Your task to perform on an android device: Go to eBay Image 0: 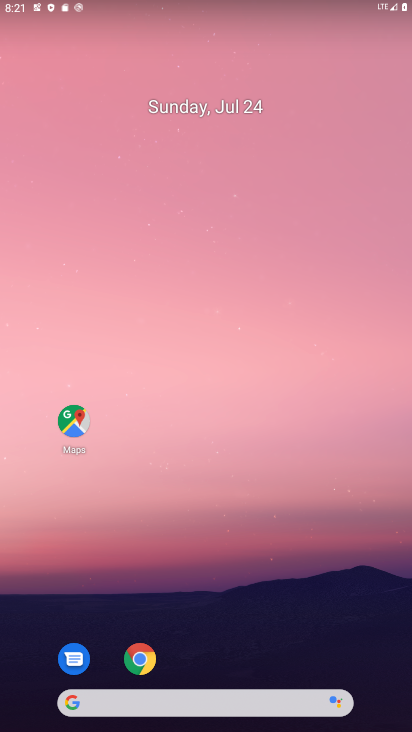
Step 0: click (138, 661)
Your task to perform on an android device: Go to eBay Image 1: 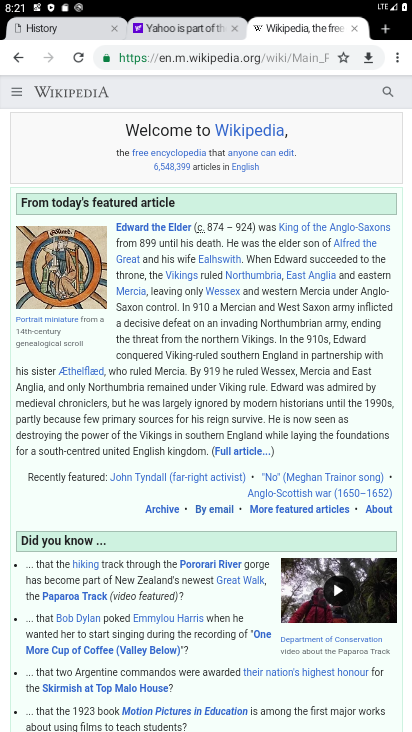
Step 1: click (398, 58)
Your task to perform on an android device: Go to eBay Image 2: 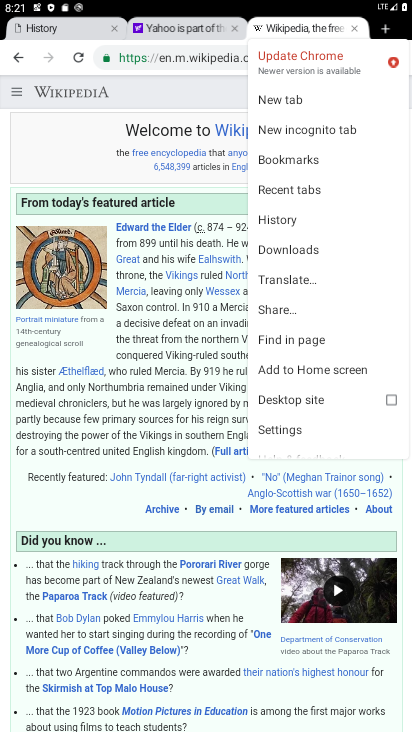
Step 2: click (290, 96)
Your task to perform on an android device: Go to eBay Image 3: 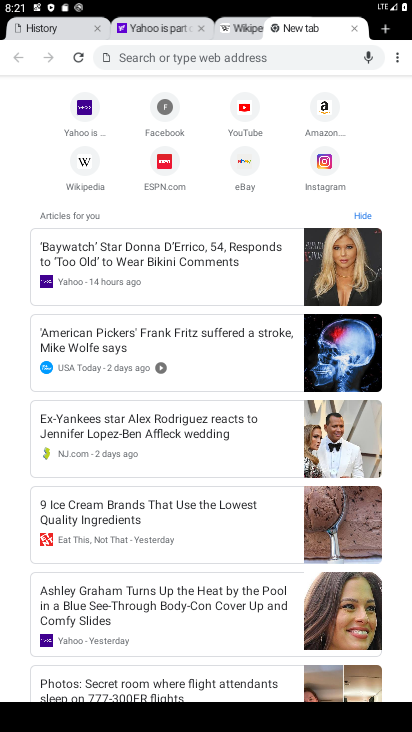
Step 3: click (245, 172)
Your task to perform on an android device: Go to eBay Image 4: 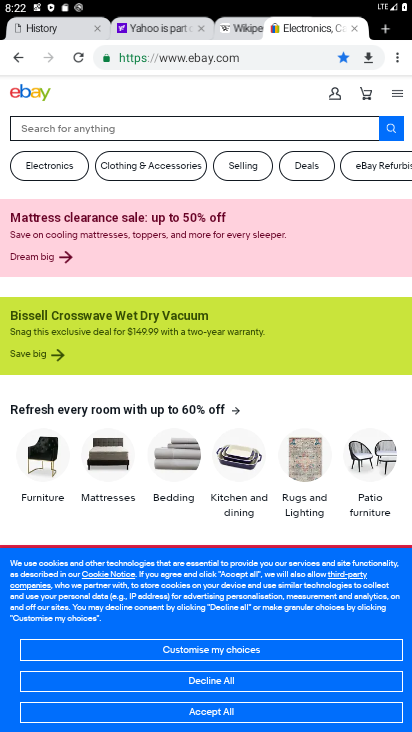
Step 4: task complete